Your task to perform on an android device: toggle show notifications on the lock screen Image 0: 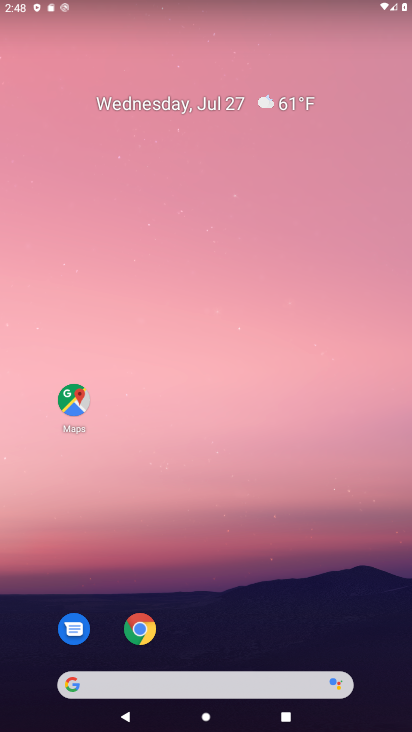
Step 0: drag from (318, 633) to (280, 48)
Your task to perform on an android device: toggle show notifications on the lock screen Image 1: 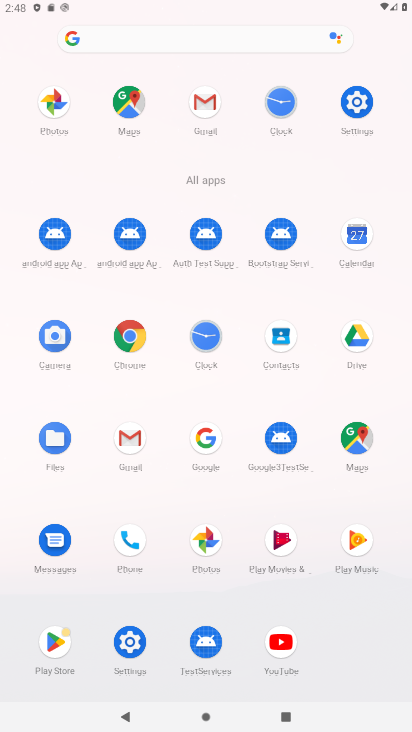
Step 1: click (364, 110)
Your task to perform on an android device: toggle show notifications on the lock screen Image 2: 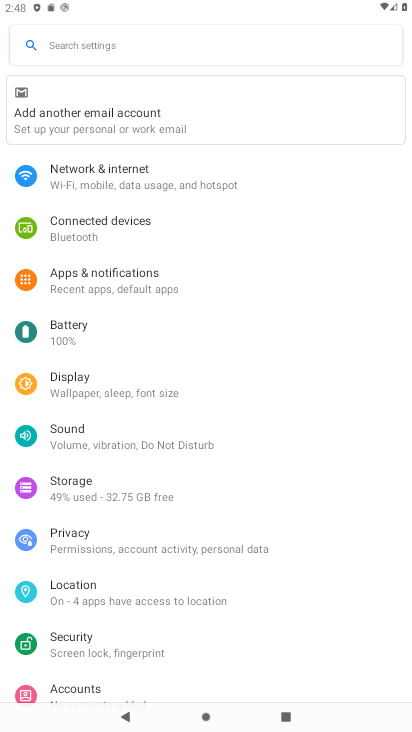
Step 2: click (208, 288)
Your task to perform on an android device: toggle show notifications on the lock screen Image 3: 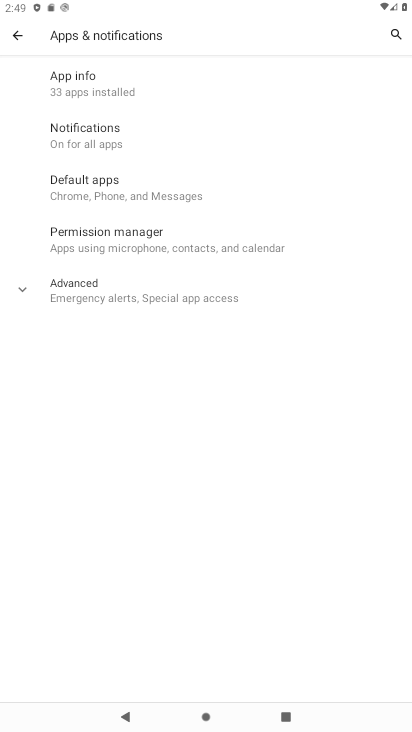
Step 3: click (172, 143)
Your task to perform on an android device: toggle show notifications on the lock screen Image 4: 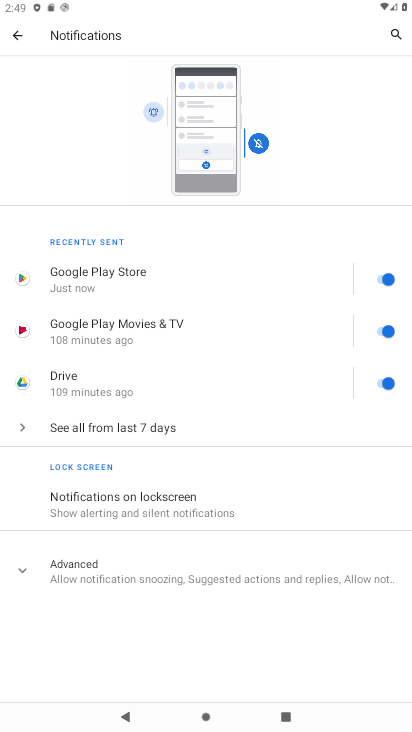
Step 4: click (206, 509)
Your task to perform on an android device: toggle show notifications on the lock screen Image 5: 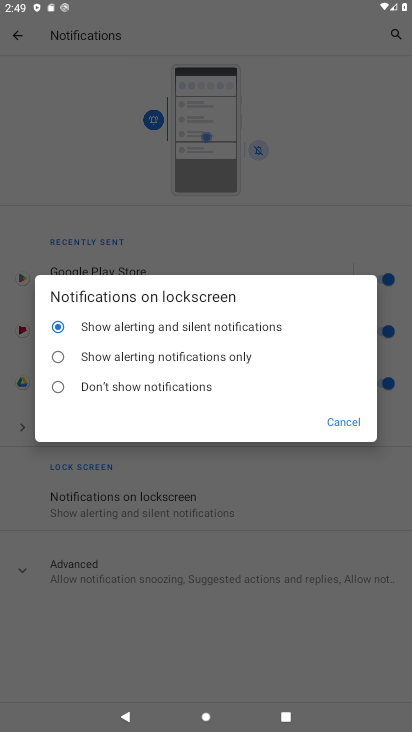
Step 5: click (199, 356)
Your task to perform on an android device: toggle show notifications on the lock screen Image 6: 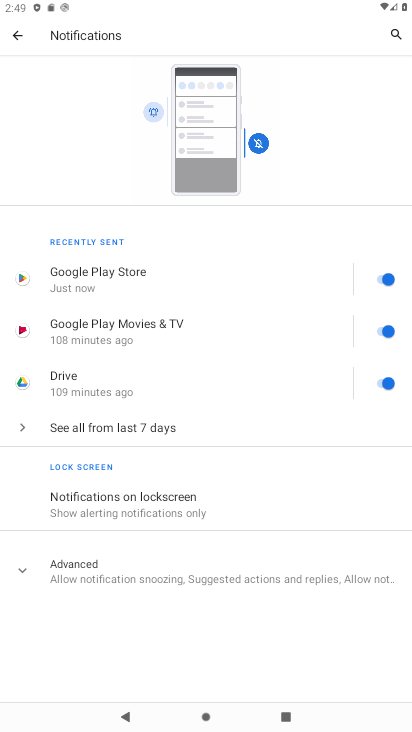
Step 6: task complete